Your task to perform on an android device: Go to Amazon Image 0: 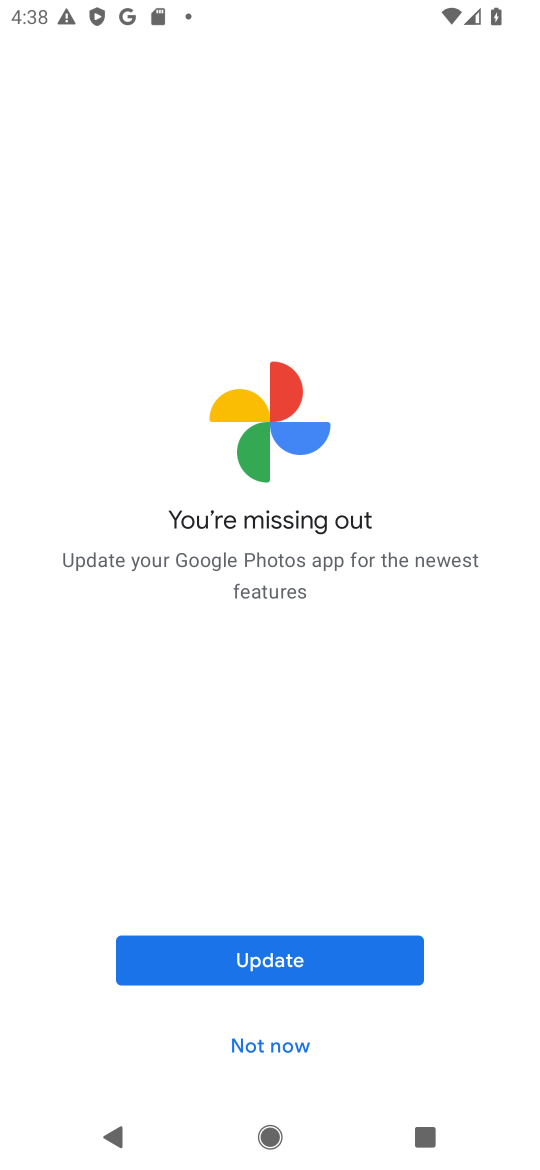
Step 0: press home button
Your task to perform on an android device: Go to Amazon Image 1: 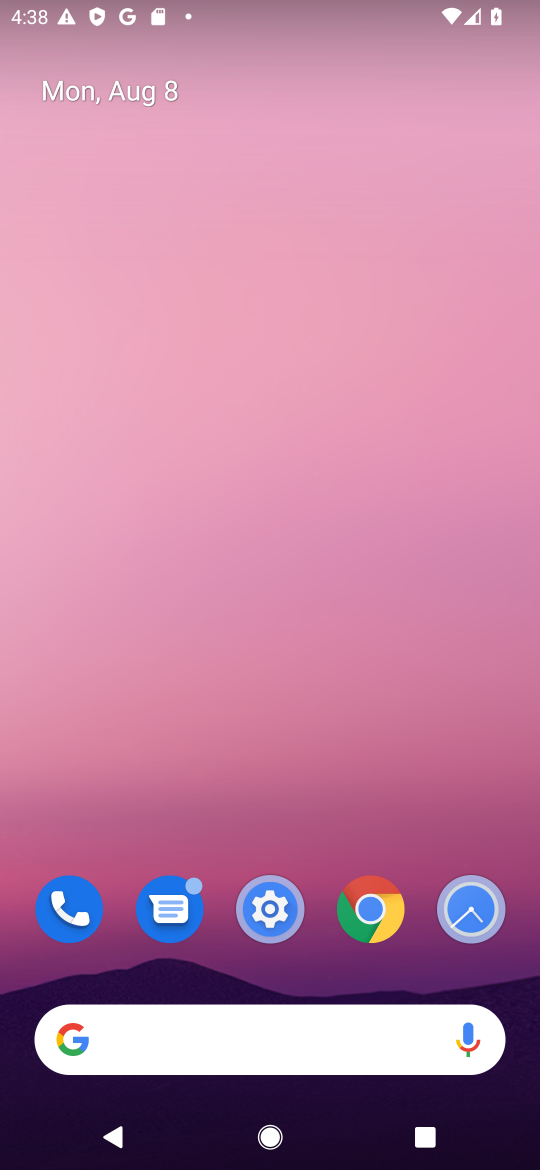
Step 1: click (368, 913)
Your task to perform on an android device: Go to Amazon Image 2: 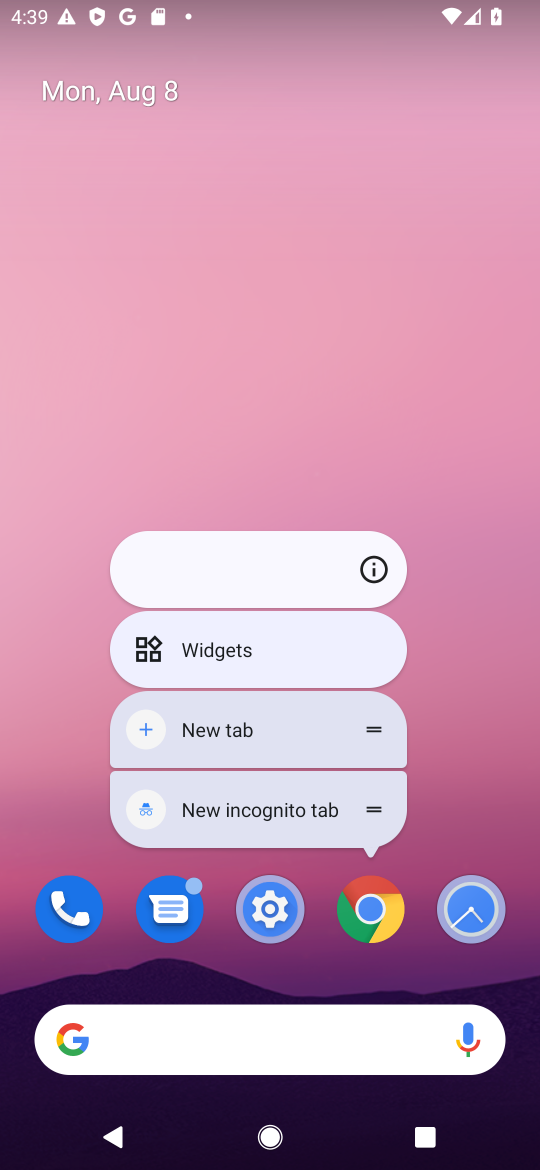
Step 2: click (368, 908)
Your task to perform on an android device: Go to Amazon Image 3: 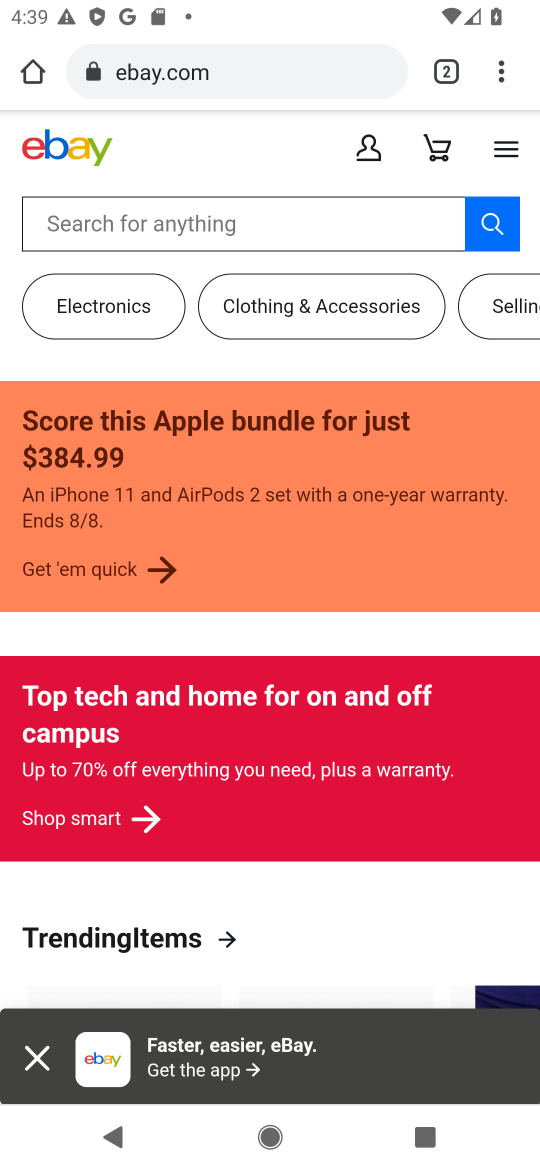
Step 3: drag from (499, 60) to (335, 233)
Your task to perform on an android device: Go to Amazon Image 4: 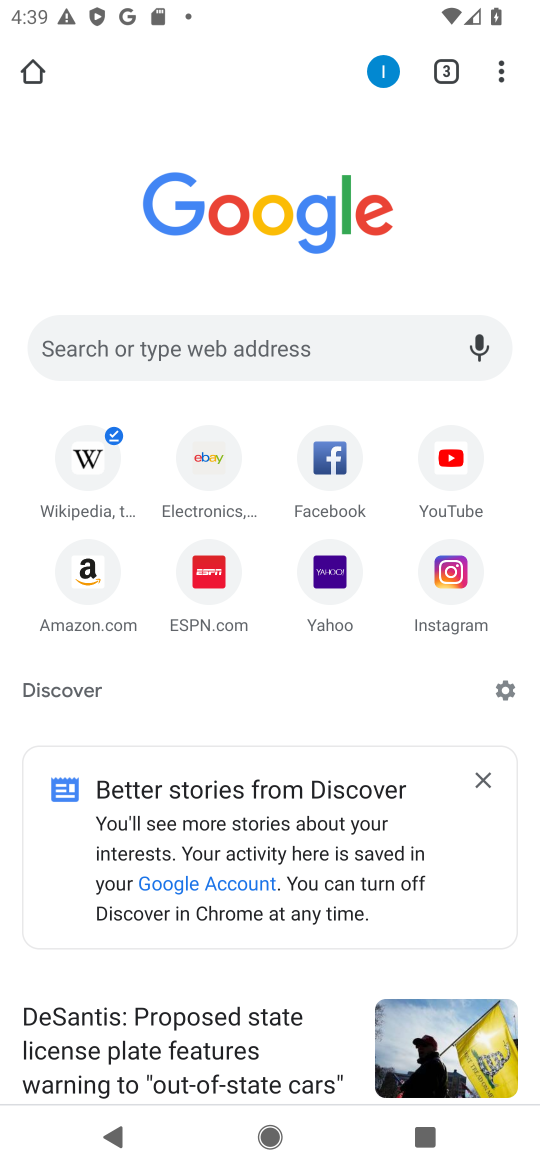
Step 4: click (88, 584)
Your task to perform on an android device: Go to Amazon Image 5: 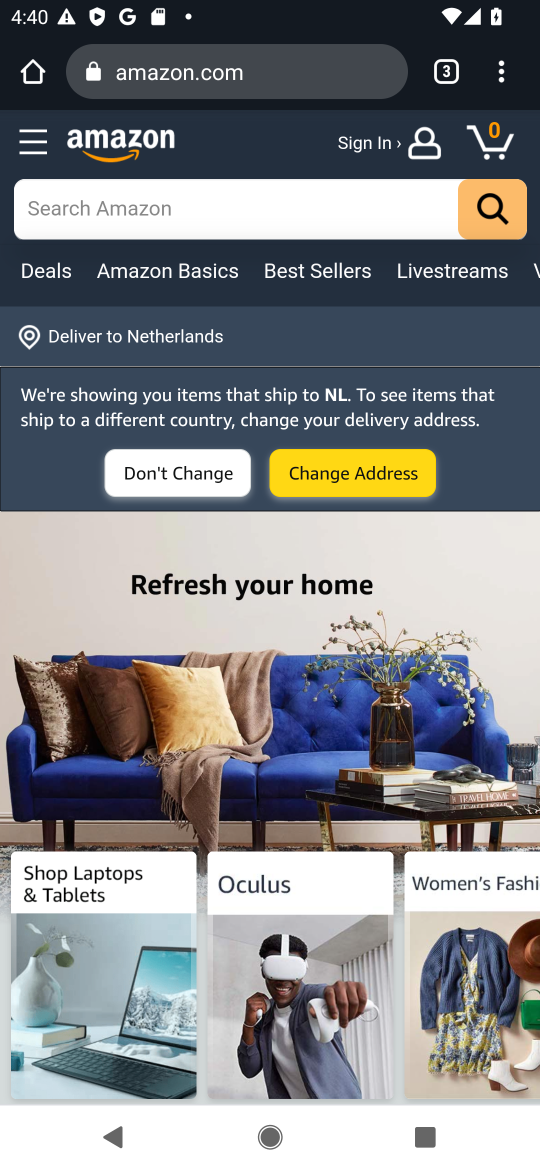
Step 5: task complete